Your task to perform on an android device: Open Maps and search for coffee Image 0: 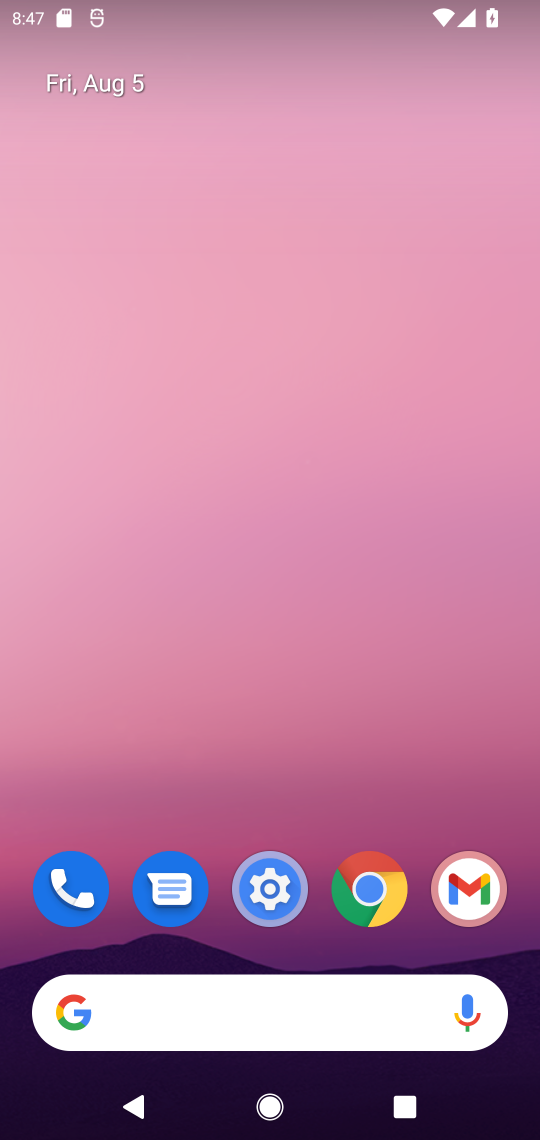
Step 0: drag from (336, 992) to (325, 354)
Your task to perform on an android device: Open Maps and search for coffee Image 1: 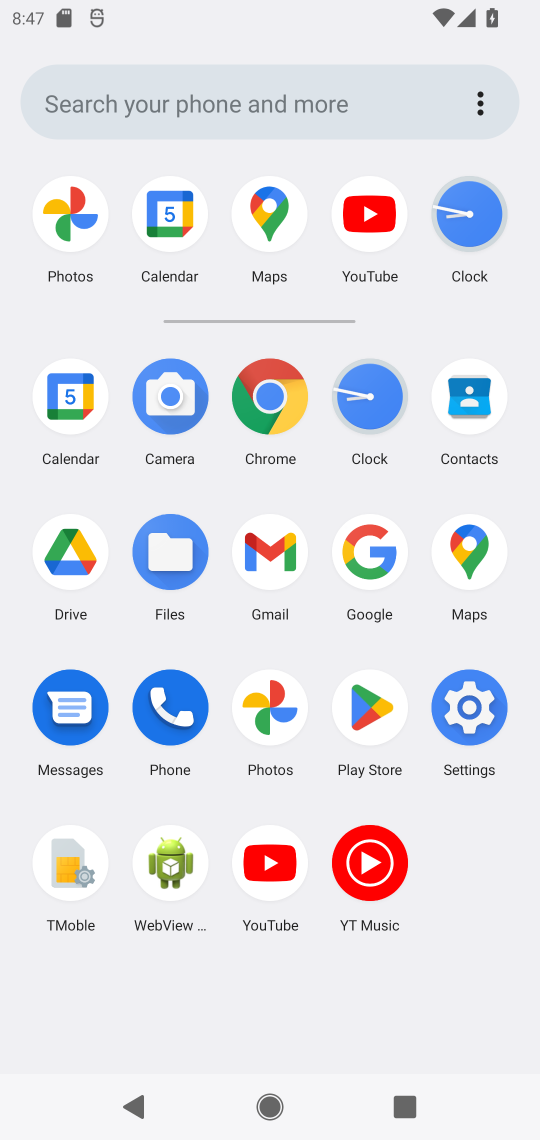
Step 1: click (461, 535)
Your task to perform on an android device: Open Maps and search for coffee Image 2: 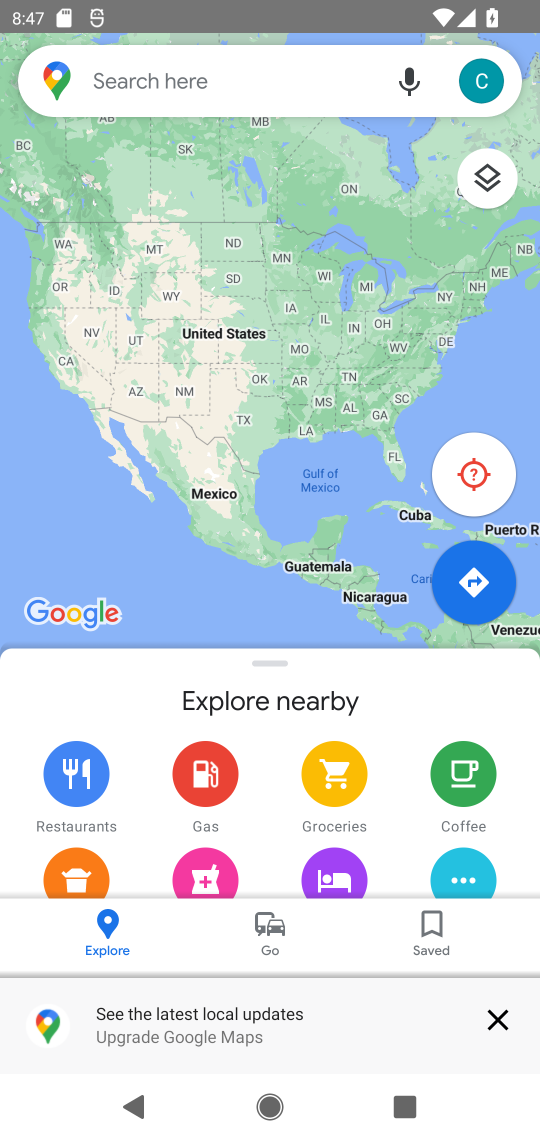
Step 2: click (192, 80)
Your task to perform on an android device: Open Maps and search for coffee Image 3: 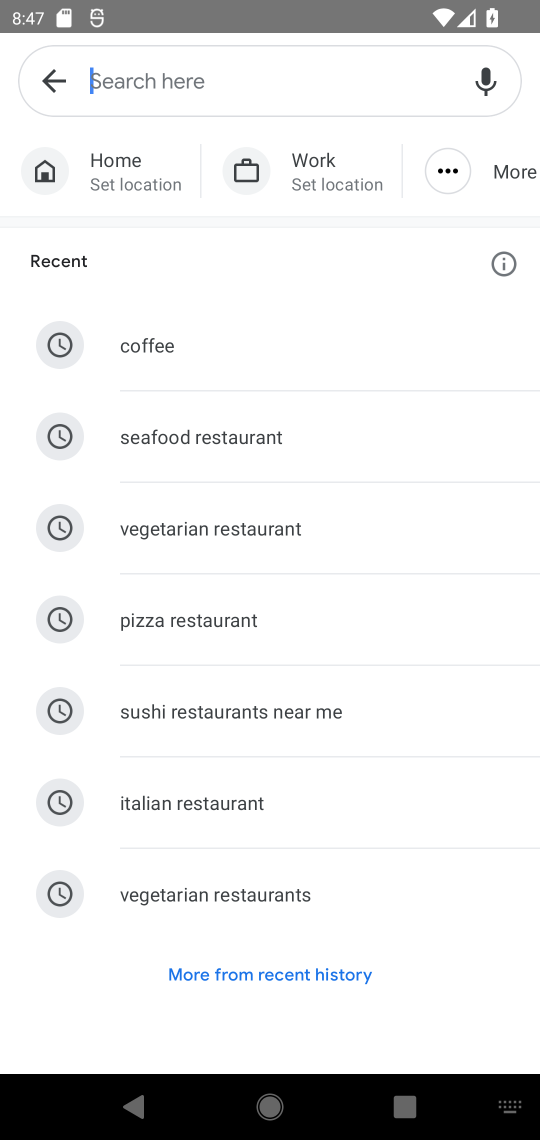
Step 3: click (159, 339)
Your task to perform on an android device: Open Maps and search for coffee Image 4: 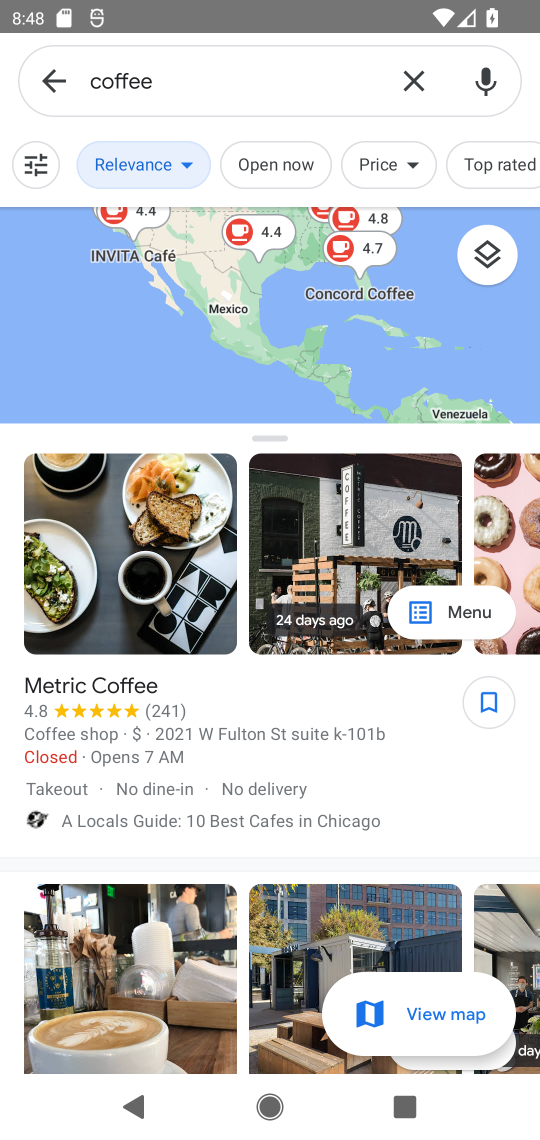
Step 4: task complete